Your task to perform on an android device: change the clock display to digital Image 0: 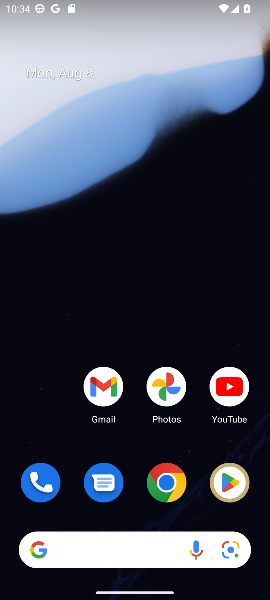
Step 0: drag from (139, 444) to (117, 62)
Your task to perform on an android device: change the clock display to digital Image 1: 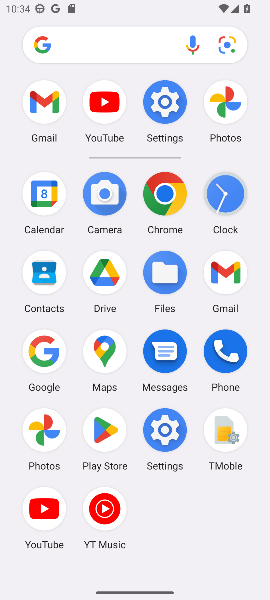
Step 1: click (217, 199)
Your task to perform on an android device: change the clock display to digital Image 2: 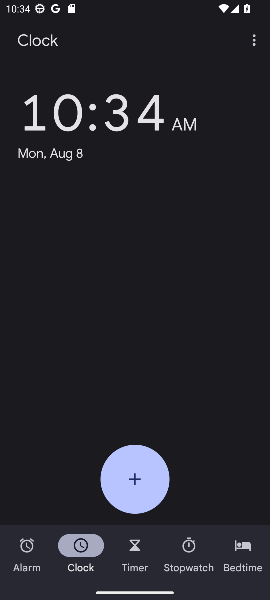
Step 2: click (254, 44)
Your task to perform on an android device: change the clock display to digital Image 3: 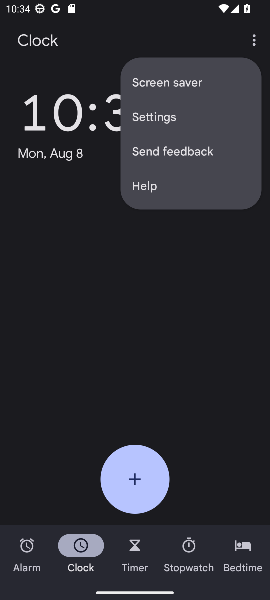
Step 3: click (163, 117)
Your task to perform on an android device: change the clock display to digital Image 4: 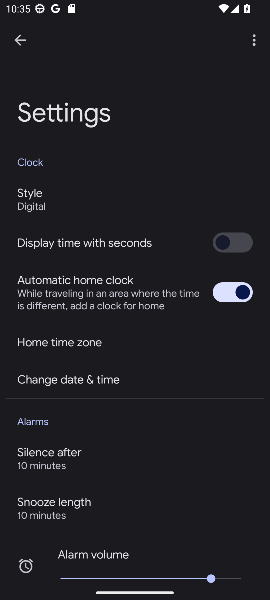
Step 4: task complete